Your task to perform on an android device: Check the news Image 0: 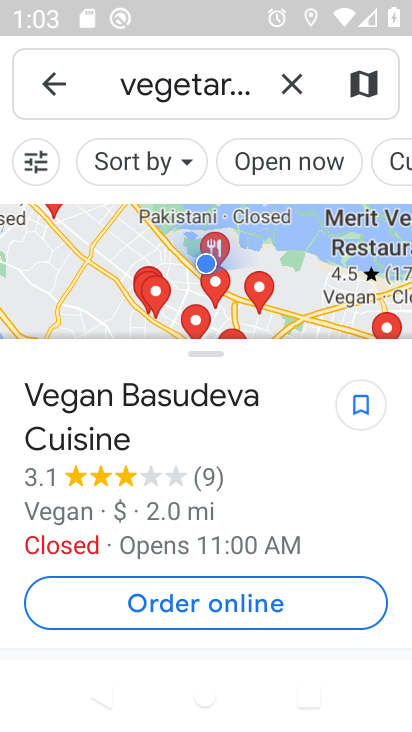
Step 0: press home button
Your task to perform on an android device: Check the news Image 1: 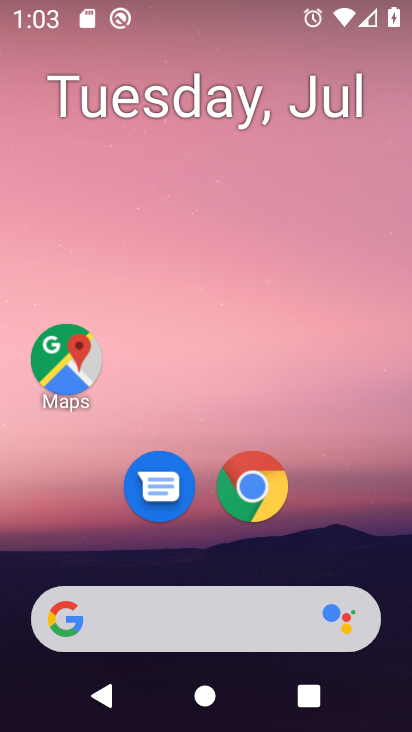
Step 1: drag from (68, 235) to (410, 449)
Your task to perform on an android device: Check the news Image 2: 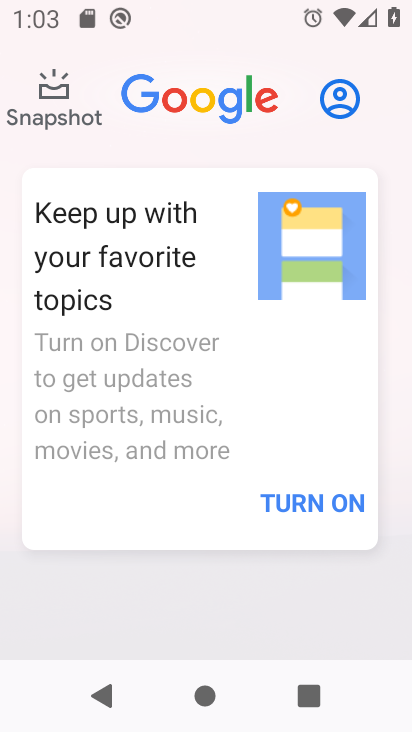
Step 2: drag from (347, 403) to (397, 568)
Your task to perform on an android device: Check the news Image 3: 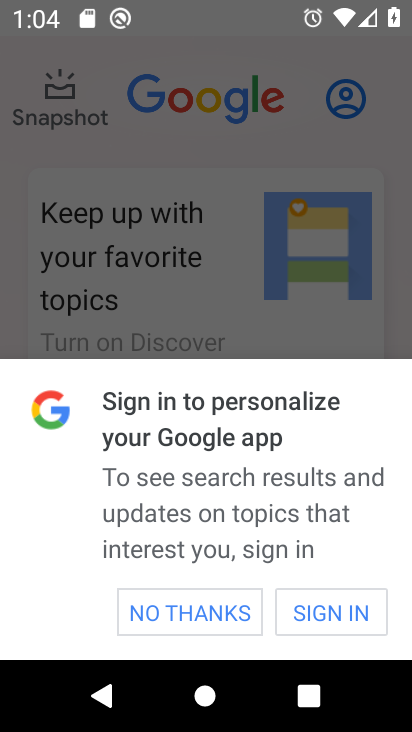
Step 3: click (174, 619)
Your task to perform on an android device: Check the news Image 4: 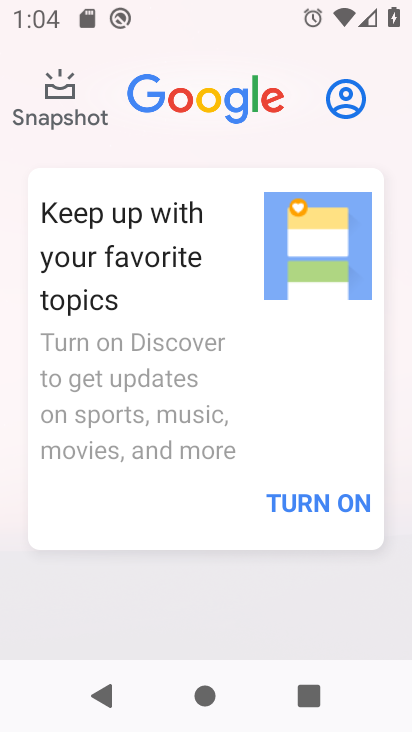
Step 4: task complete